Your task to perform on an android device: turn on javascript in the chrome app Image 0: 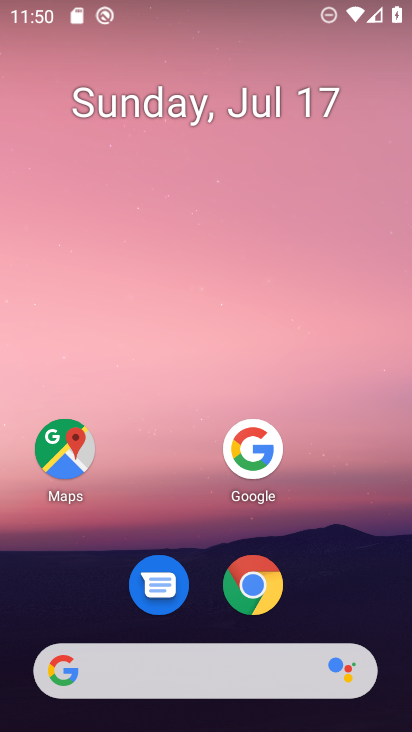
Step 0: click (257, 583)
Your task to perform on an android device: turn on javascript in the chrome app Image 1: 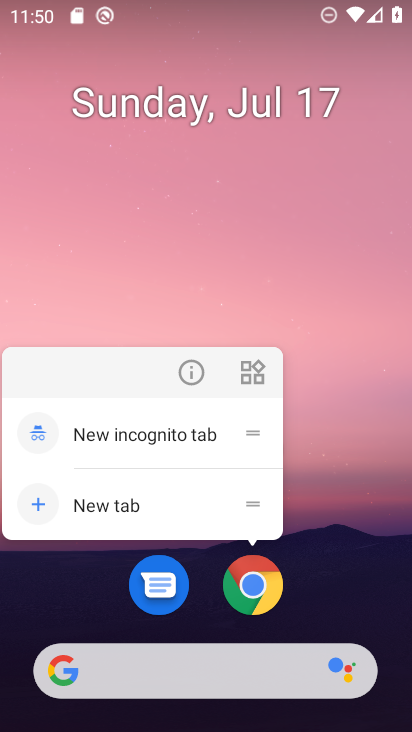
Step 1: click (257, 583)
Your task to perform on an android device: turn on javascript in the chrome app Image 2: 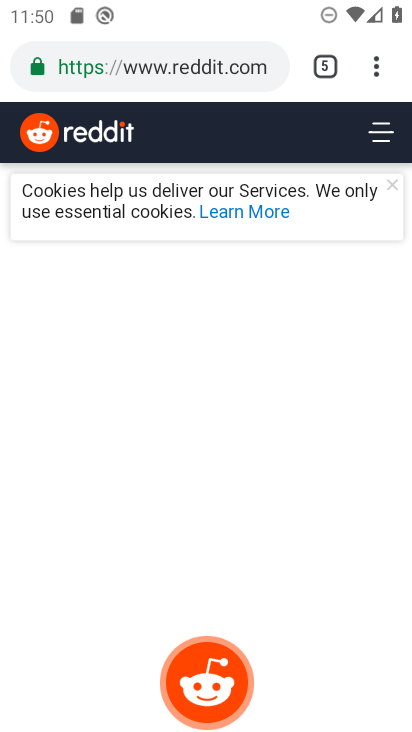
Step 2: drag from (370, 75) to (229, 587)
Your task to perform on an android device: turn on javascript in the chrome app Image 3: 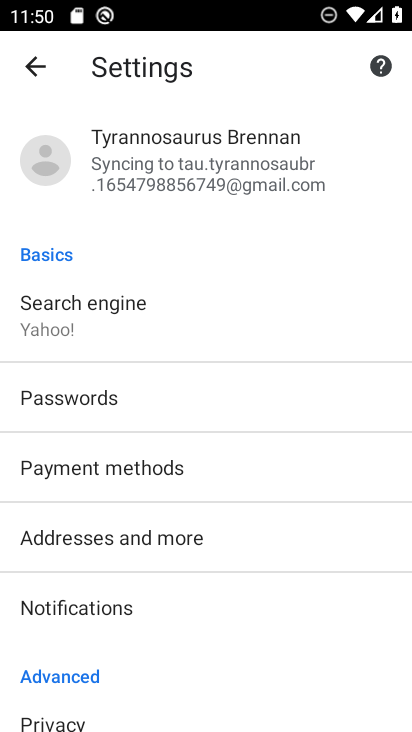
Step 3: drag from (214, 645) to (243, 442)
Your task to perform on an android device: turn on javascript in the chrome app Image 4: 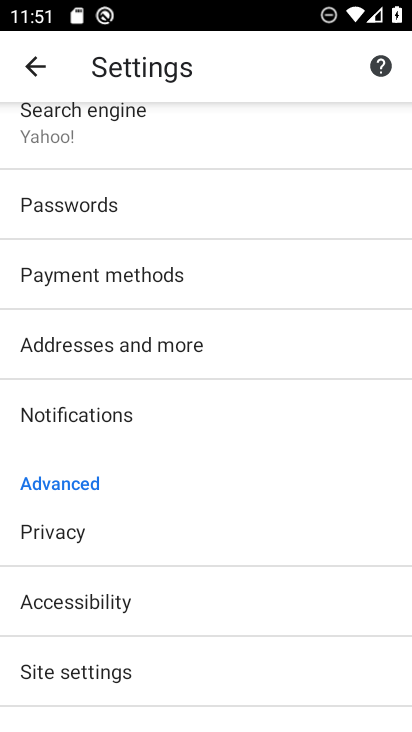
Step 4: click (99, 668)
Your task to perform on an android device: turn on javascript in the chrome app Image 5: 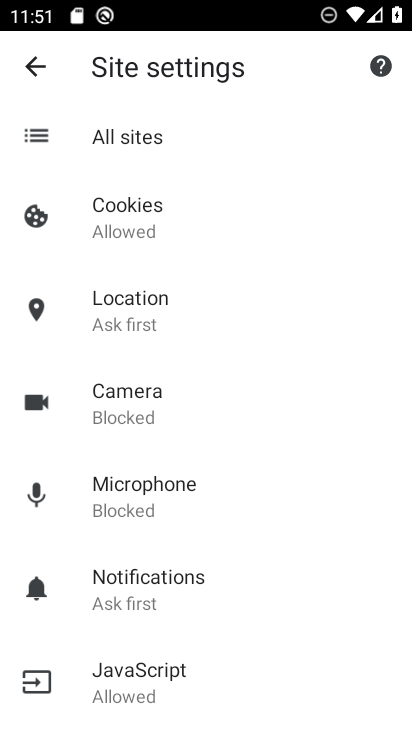
Step 5: click (179, 681)
Your task to perform on an android device: turn on javascript in the chrome app Image 6: 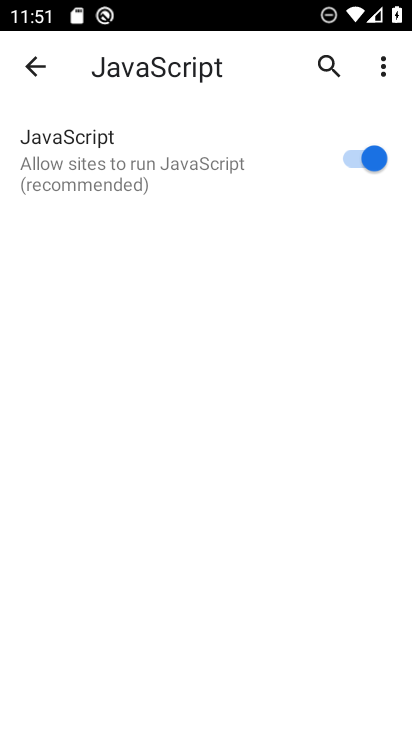
Step 6: task complete